Your task to perform on an android device: Go to Google Image 0: 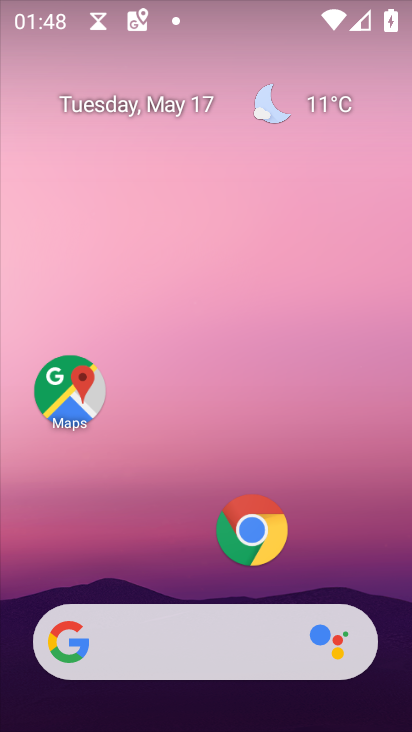
Step 0: drag from (341, 502) to (316, 143)
Your task to perform on an android device: Go to Google Image 1: 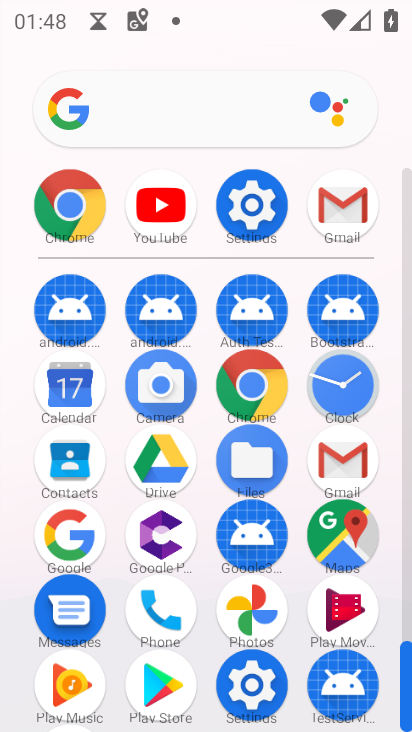
Step 1: click (65, 525)
Your task to perform on an android device: Go to Google Image 2: 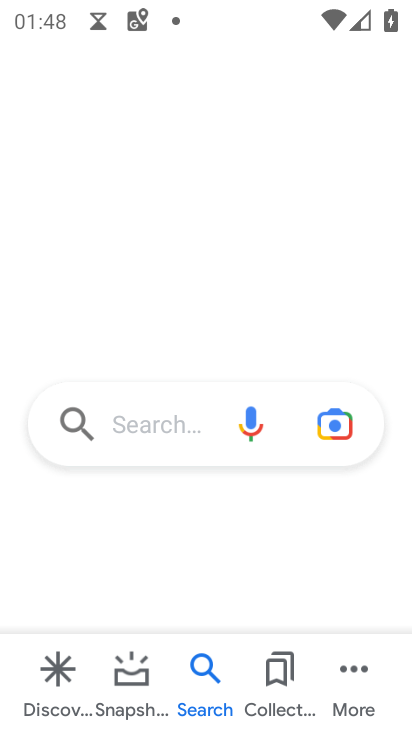
Step 2: task complete